Your task to perform on an android device: Show me productivity apps on the Play Store Image 0: 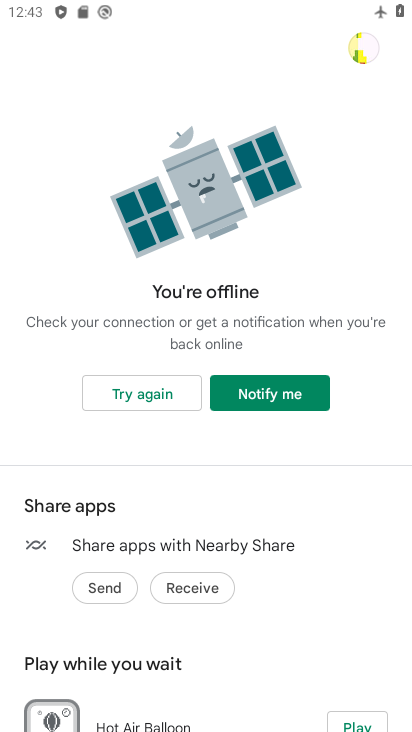
Step 0: press home button
Your task to perform on an android device: Show me productivity apps on the Play Store Image 1: 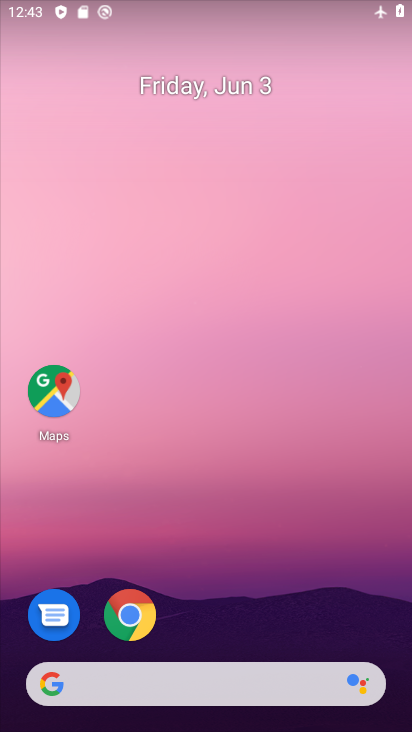
Step 1: drag from (223, 637) to (265, 207)
Your task to perform on an android device: Show me productivity apps on the Play Store Image 2: 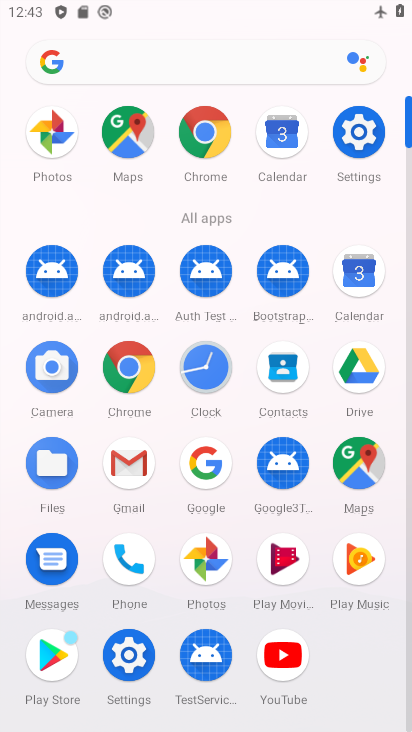
Step 2: click (48, 660)
Your task to perform on an android device: Show me productivity apps on the Play Store Image 3: 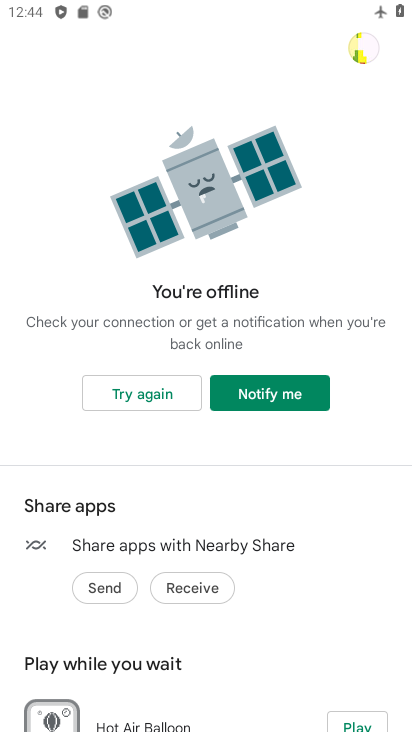
Step 3: task complete